Your task to perform on an android device: Open sound settings Image 0: 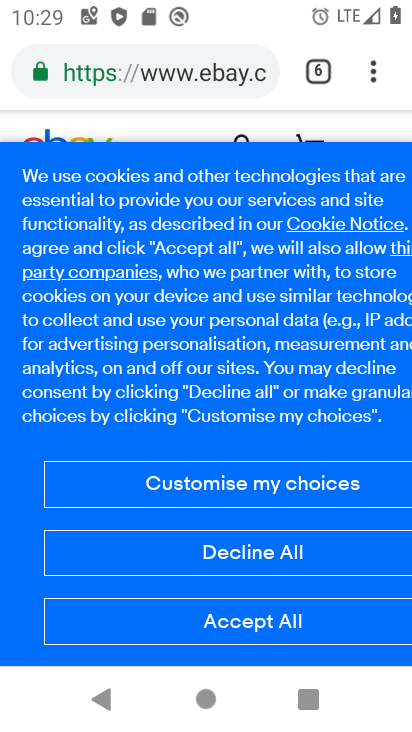
Step 0: press home button
Your task to perform on an android device: Open sound settings Image 1: 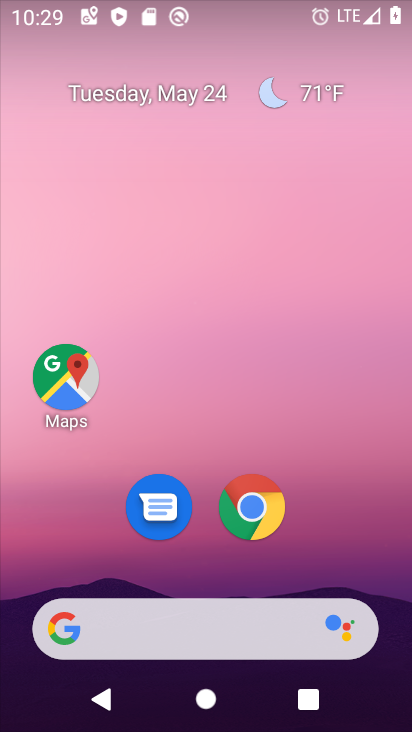
Step 1: drag from (226, 722) to (202, 72)
Your task to perform on an android device: Open sound settings Image 2: 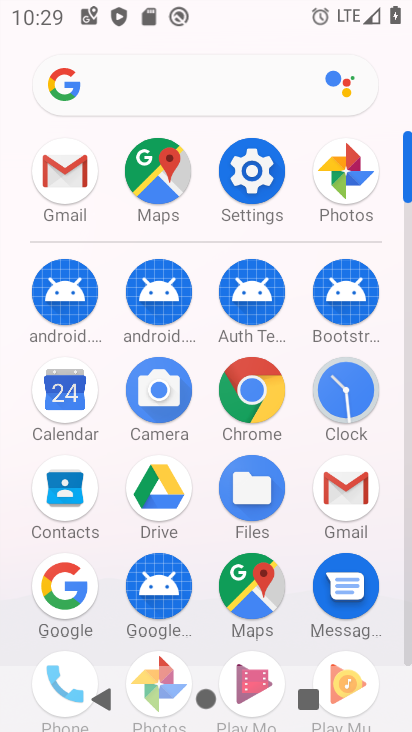
Step 2: click (267, 170)
Your task to perform on an android device: Open sound settings Image 3: 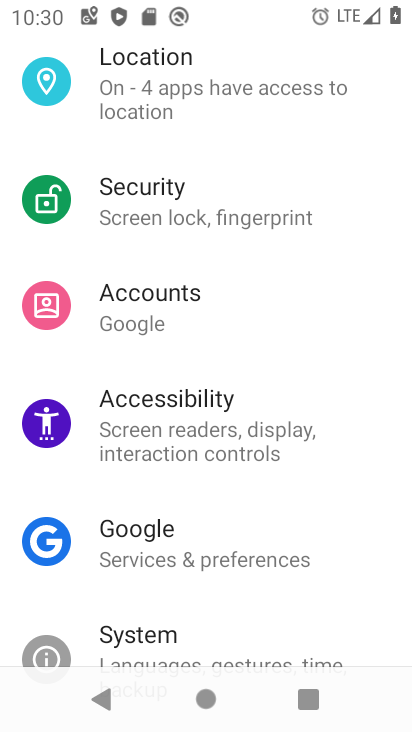
Step 3: drag from (187, 174) to (237, 526)
Your task to perform on an android device: Open sound settings Image 4: 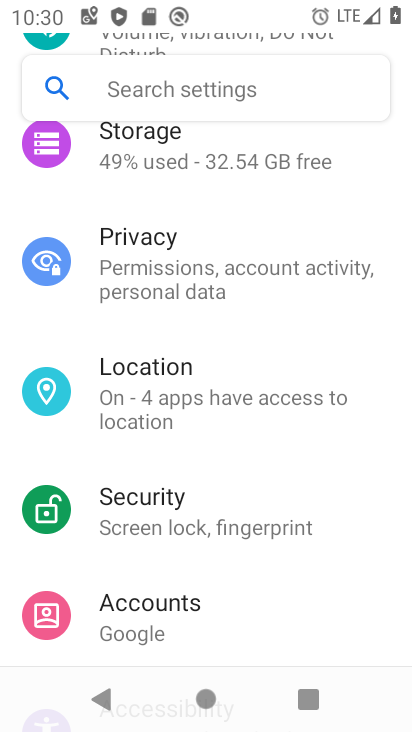
Step 4: drag from (169, 170) to (221, 551)
Your task to perform on an android device: Open sound settings Image 5: 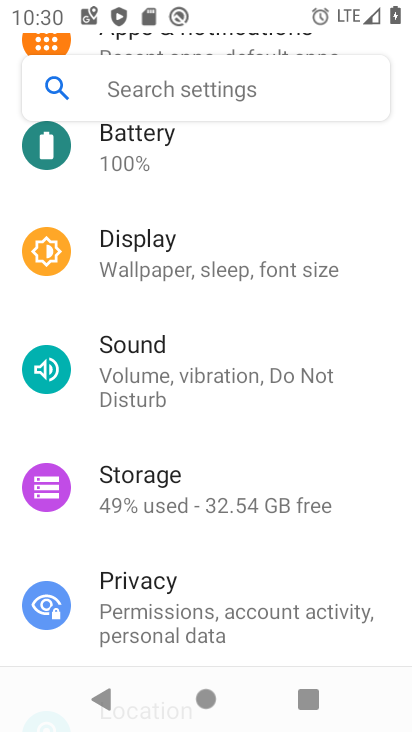
Step 5: drag from (164, 195) to (196, 408)
Your task to perform on an android device: Open sound settings Image 6: 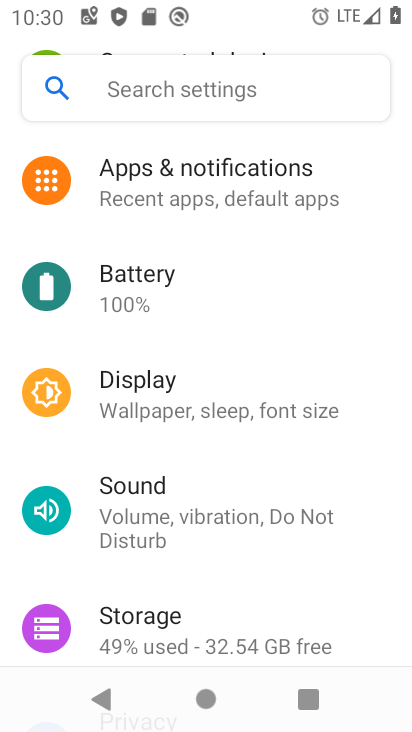
Step 6: click (153, 518)
Your task to perform on an android device: Open sound settings Image 7: 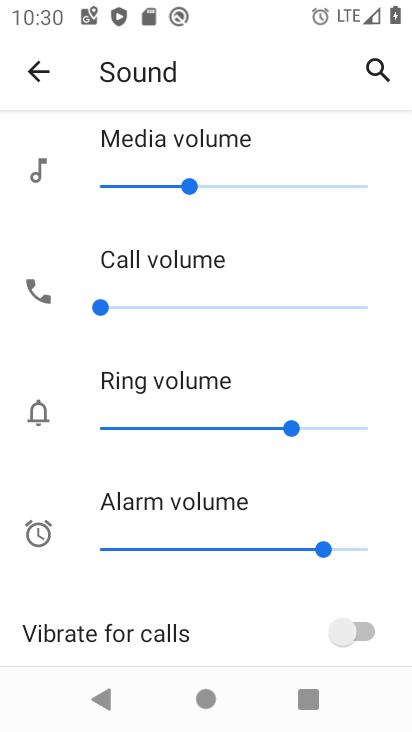
Step 7: task complete